Your task to perform on an android device: Search for sushi restaurants on Maps Image 0: 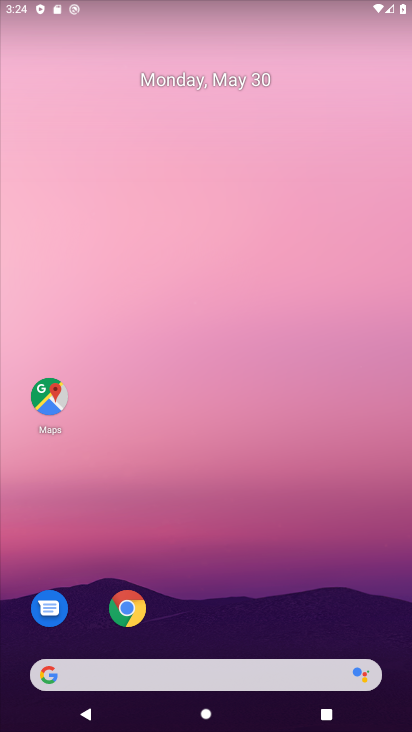
Step 0: drag from (273, 571) to (257, 237)
Your task to perform on an android device: Search for sushi restaurants on Maps Image 1: 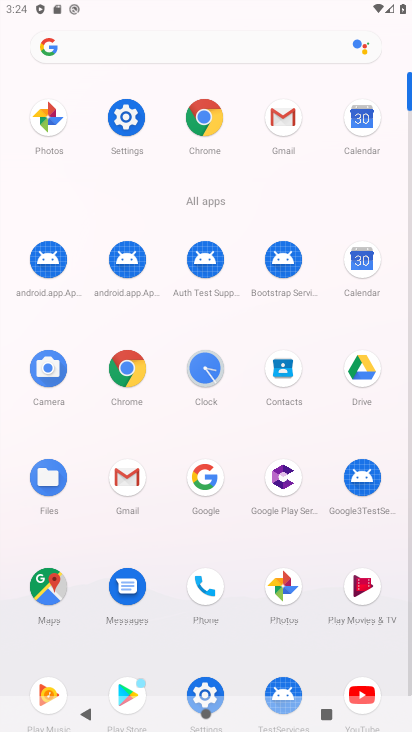
Step 1: click (44, 585)
Your task to perform on an android device: Search for sushi restaurants on Maps Image 2: 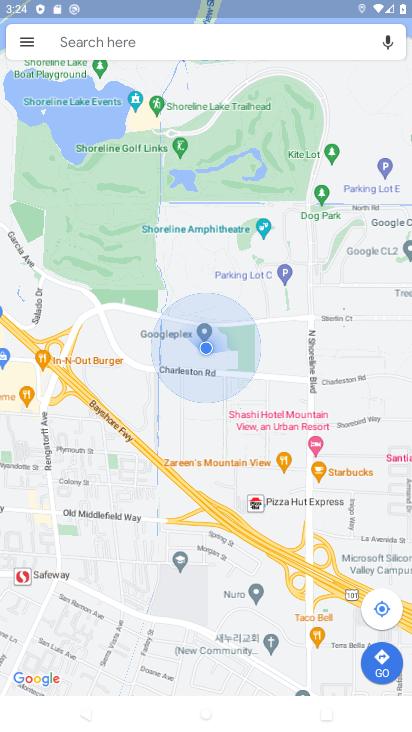
Step 2: click (124, 43)
Your task to perform on an android device: Search for sushi restaurants on Maps Image 3: 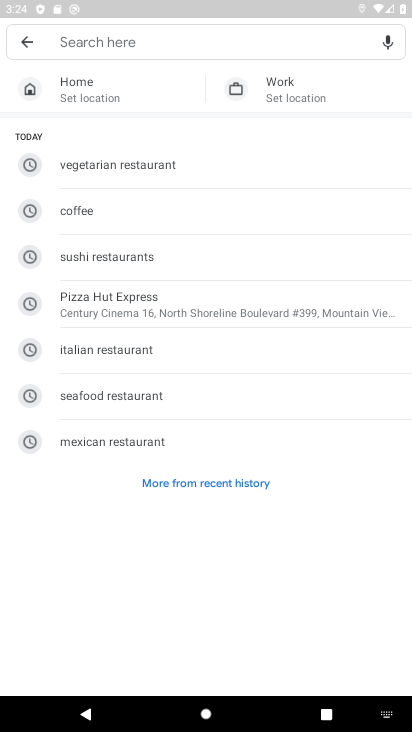
Step 3: click (132, 254)
Your task to perform on an android device: Search for sushi restaurants on Maps Image 4: 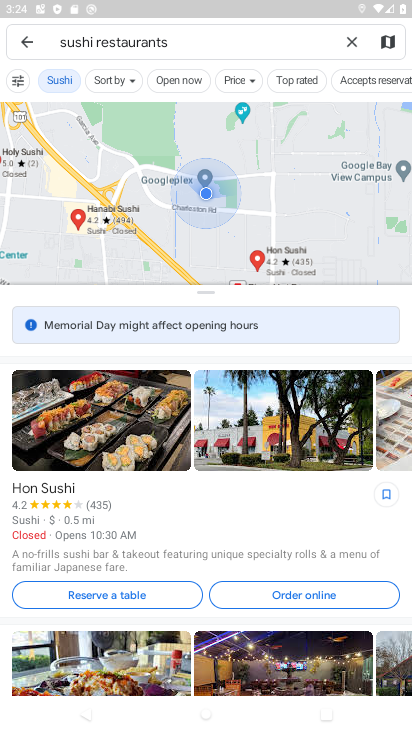
Step 4: task complete